Your task to perform on an android device: turn off translation in the chrome app Image 0: 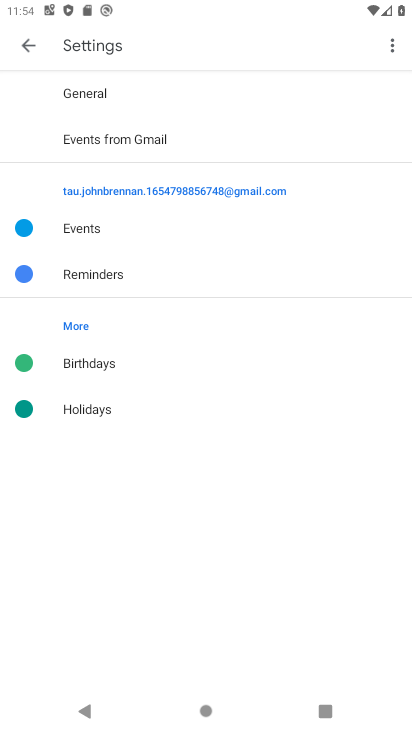
Step 0: press home button
Your task to perform on an android device: turn off translation in the chrome app Image 1: 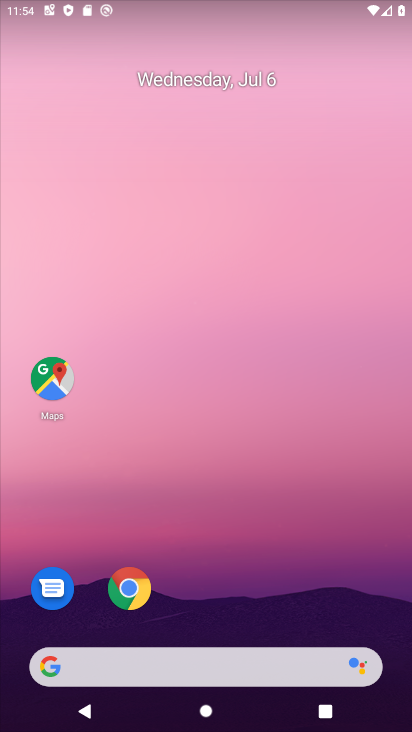
Step 1: click (132, 587)
Your task to perform on an android device: turn off translation in the chrome app Image 2: 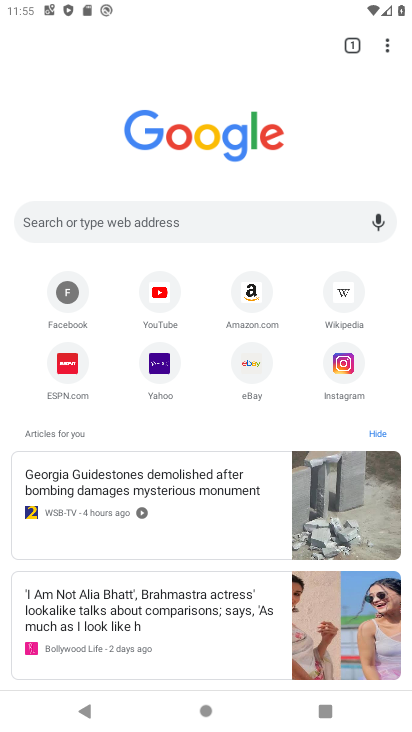
Step 2: click (387, 47)
Your task to perform on an android device: turn off translation in the chrome app Image 3: 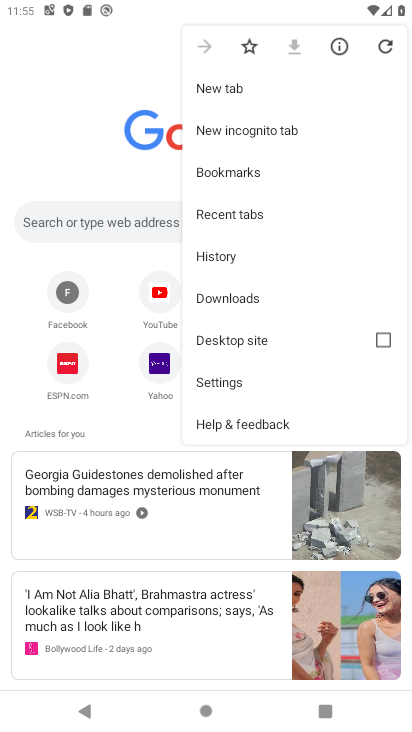
Step 3: click (225, 377)
Your task to perform on an android device: turn off translation in the chrome app Image 4: 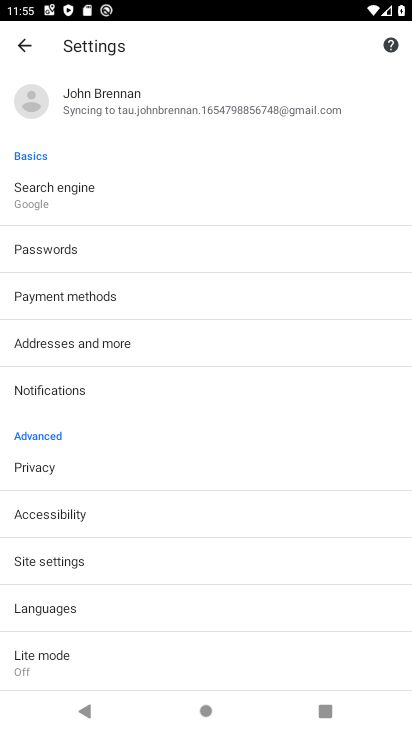
Step 4: click (69, 609)
Your task to perform on an android device: turn off translation in the chrome app Image 5: 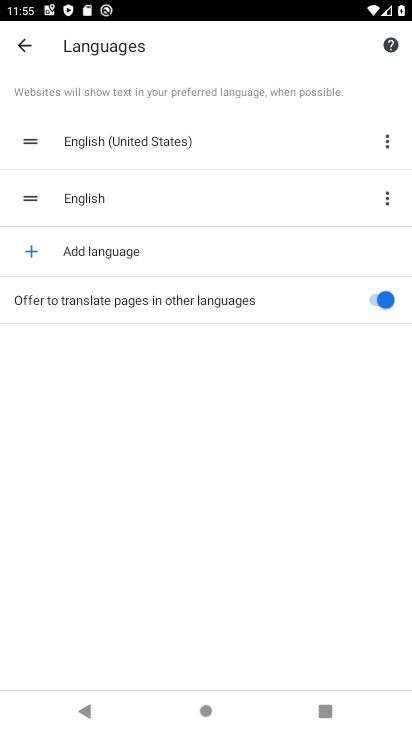
Step 5: click (378, 302)
Your task to perform on an android device: turn off translation in the chrome app Image 6: 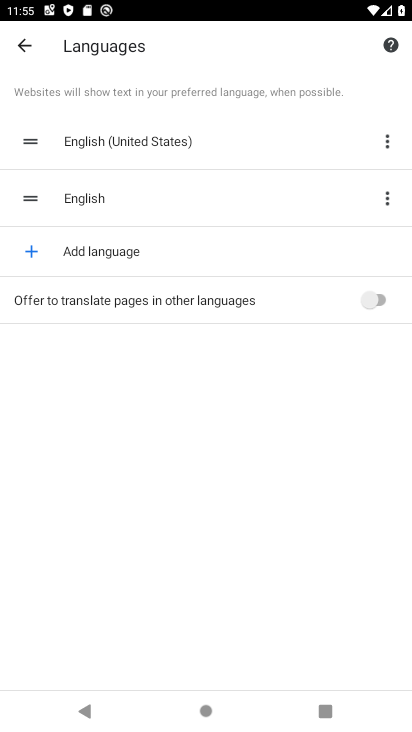
Step 6: task complete